Your task to perform on an android device: change notification settings in the gmail app Image 0: 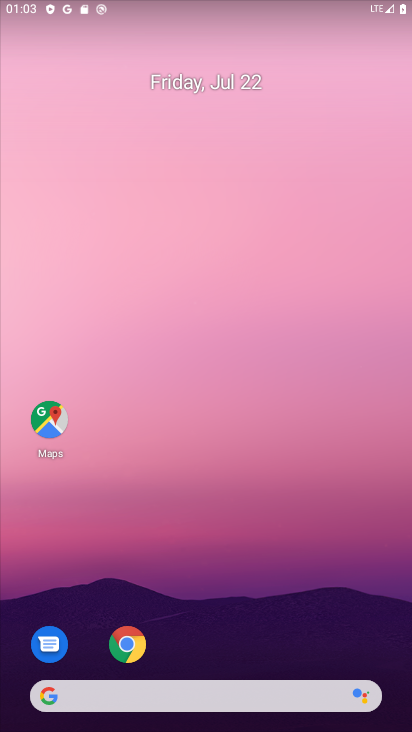
Step 0: drag from (276, 709) to (254, 61)
Your task to perform on an android device: change notification settings in the gmail app Image 1: 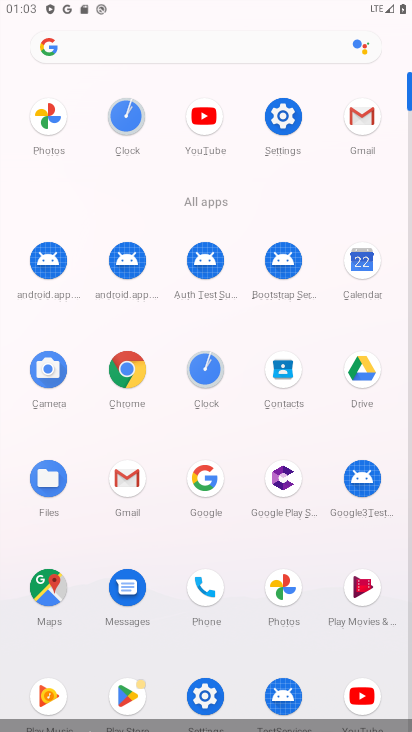
Step 1: click (286, 119)
Your task to perform on an android device: change notification settings in the gmail app Image 2: 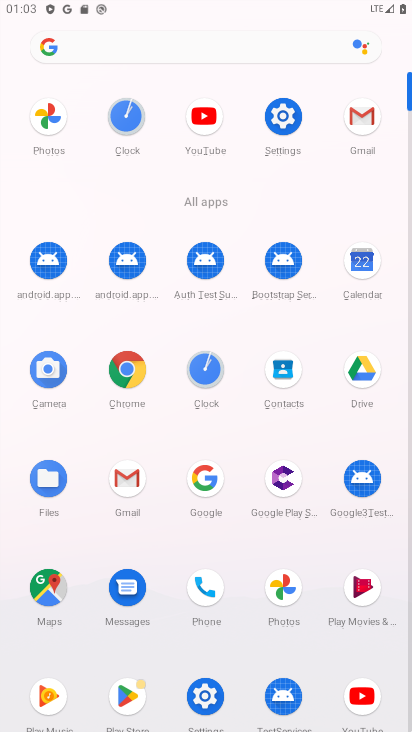
Step 2: click (286, 119)
Your task to perform on an android device: change notification settings in the gmail app Image 3: 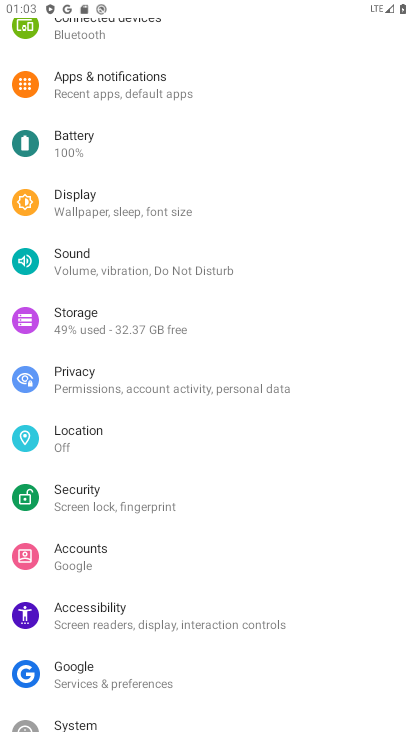
Step 3: click (153, 90)
Your task to perform on an android device: change notification settings in the gmail app Image 4: 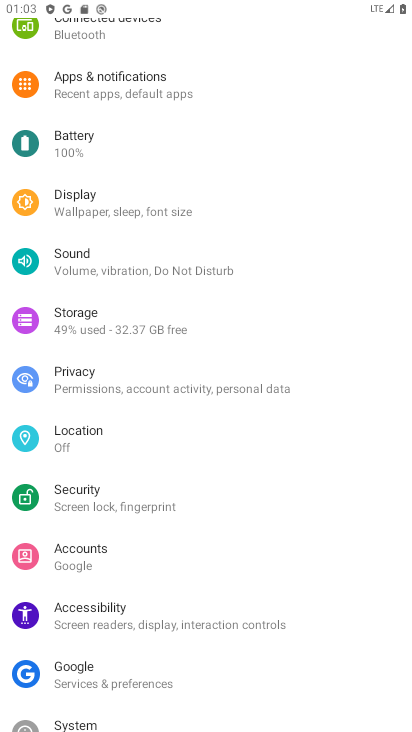
Step 4: click (153, 90)
Your task to perform on an android device: change notification settings in the gmail app Image 5: 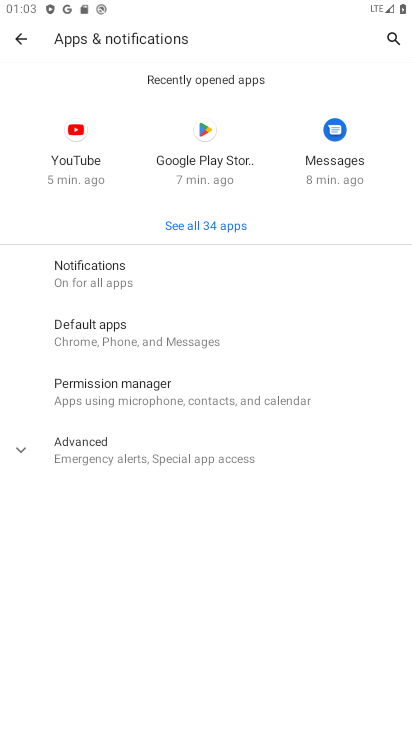
Step 5: click (208, 221)
Your task to perform on an android device: change notification settings in the gmail app Image 6: 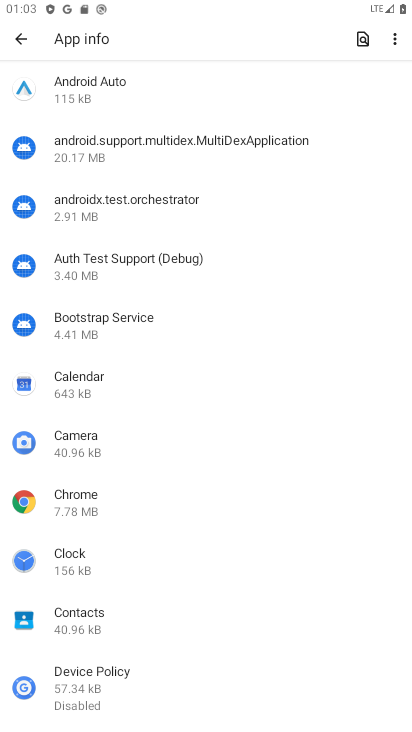
Step 6: drag from (137, 639) to (146, 12)
Your task to perform on an android device: change notification settings in the gmail app Image 7: 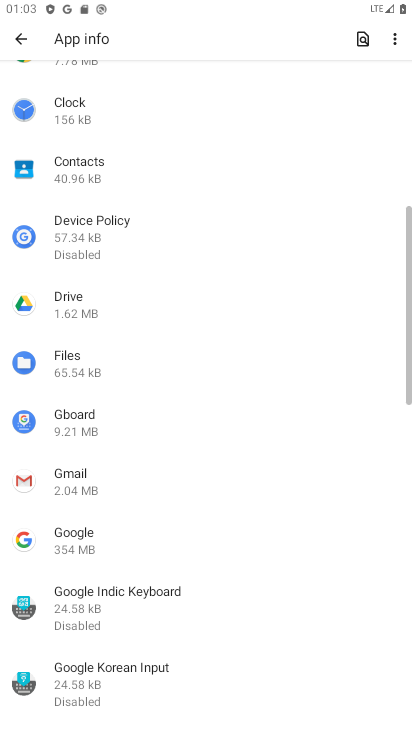
Step 7: click (211, 477)
Your task to perform on an android device: change notification settings in the gmail app Image 8: 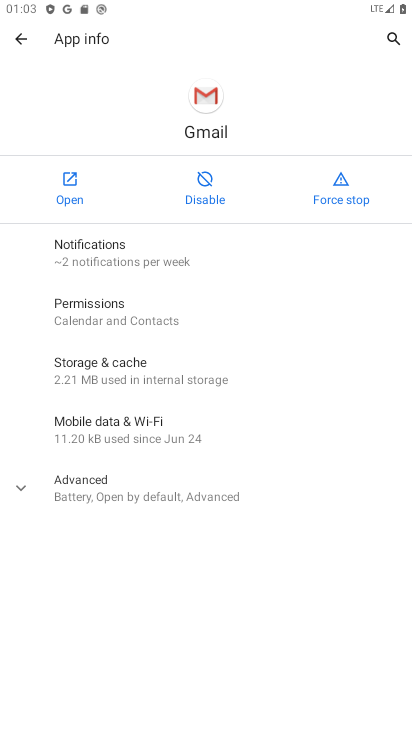
Step 8: click (185, 261)
Your task to perform on an android device: change notification settings in the gmail app Image 9: 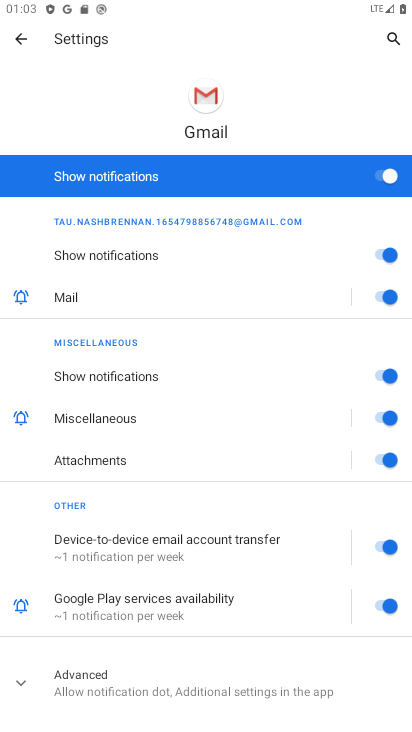
Step 9: click (396, 171)
Your task to perform on an android device: change notification settings in the gmail app Image 10: 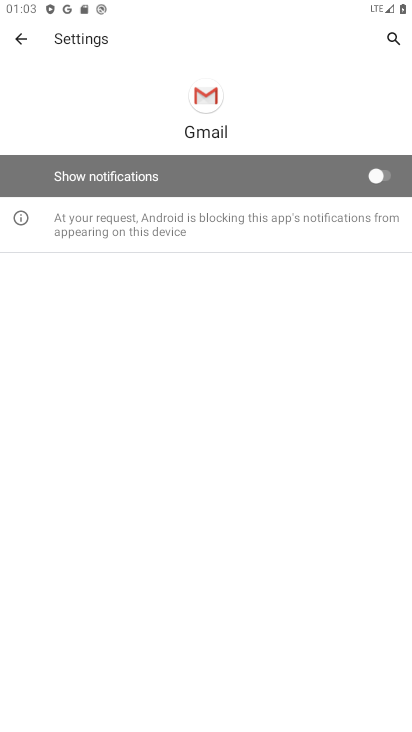
Step 10: task complete